Your task to perform on an android device: Go to battery settings Image 0: 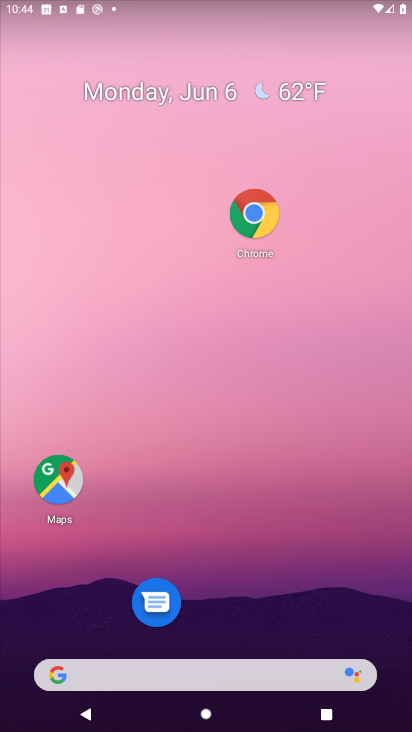
Step 0: drag from (224, 619) to (267, 90)
Your task to perform on an android device: Go to battery settings Image 1: 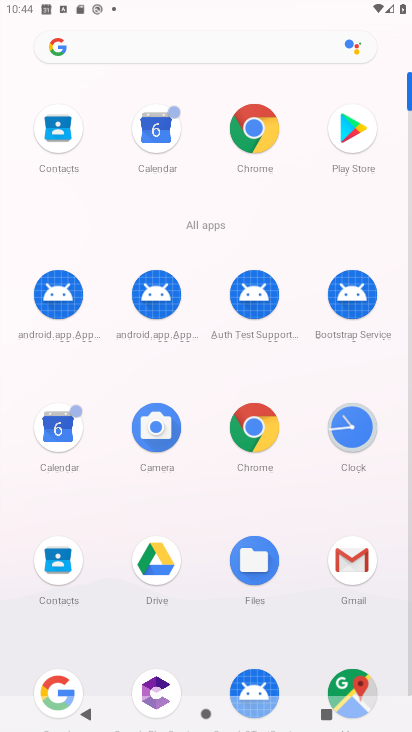
Step 1: drag from (248, 522) to (283, 75)
Your task to perform on an android device: Go to battery settings Image 2: 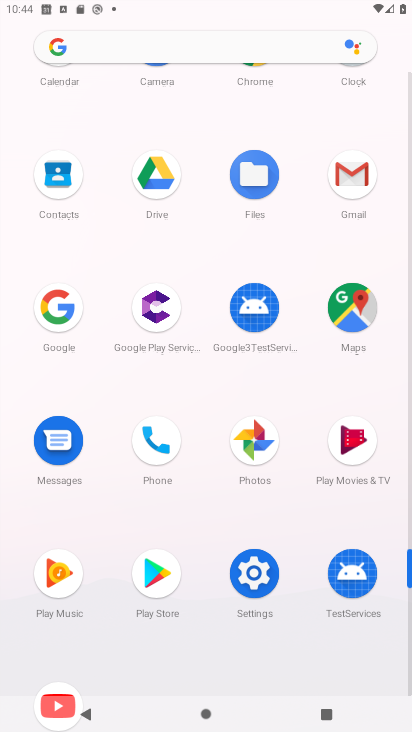
Step 2: click (260, 584)
Your task to perform on an android device: Go to battery settings Image 3: 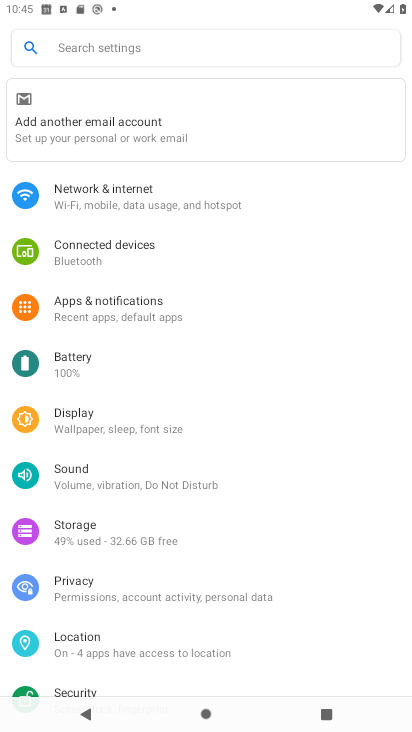
Step 3: click (123, 376)
Your task to perform on an android device: Go to battery settings Image 4: 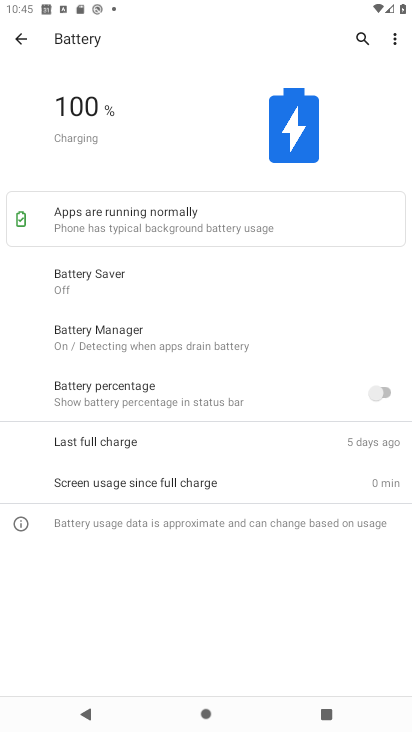
Step 4: task complete